Your task to perform on an android device: Open Maps and search for coffee Image 0: 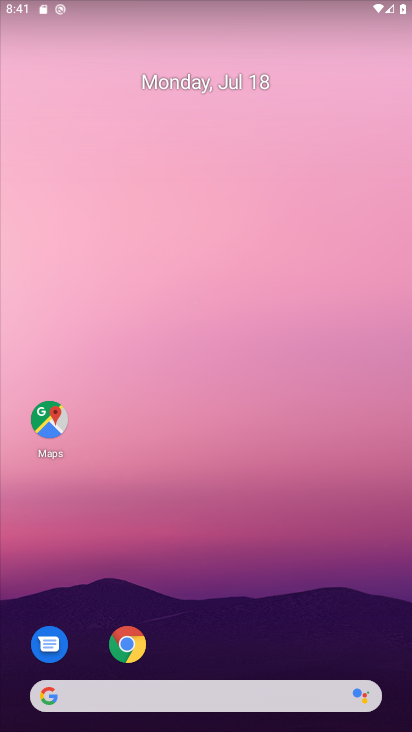
Step 0: click (32, 407)
Your task to perform on an android device: Open Maps and search for coffee Image 1: 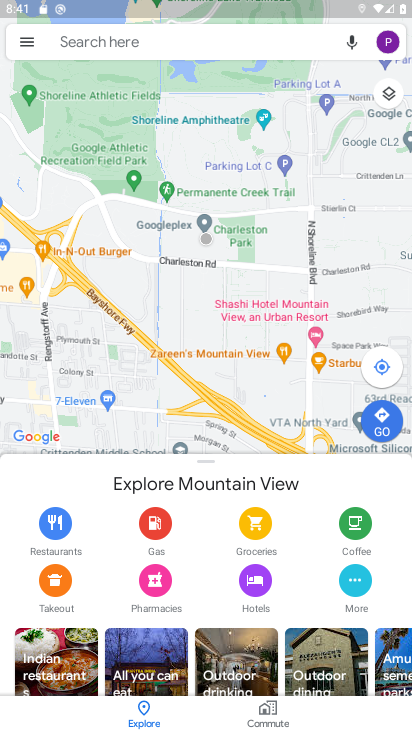
Step 1: click (256, 50)
Your task to perform on an android device: Open Maps and search for coffee Image 2: 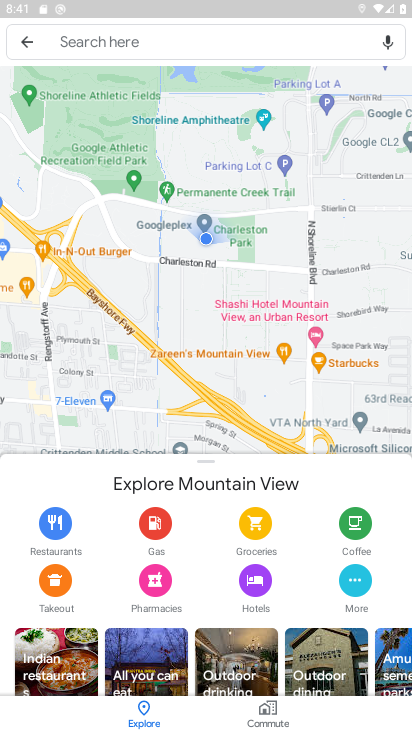
Step 2: click (256, 50)
Your task to perform on an android device: Open Maps and search for coffee Image 3: 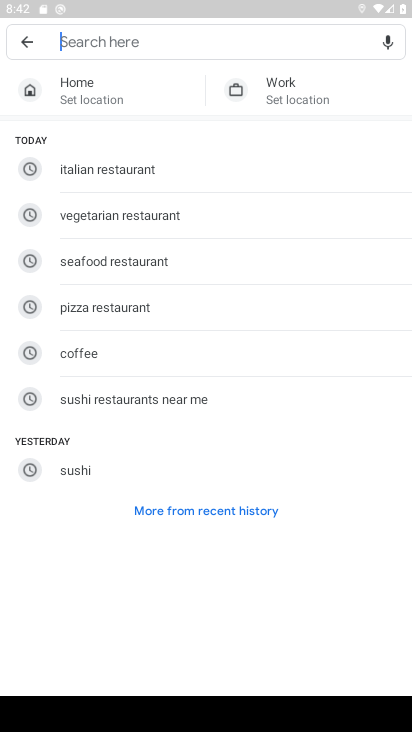
Step 3: type "coffee"
Your task to perform on an android device: Open Maps and search for coffee Image 4: 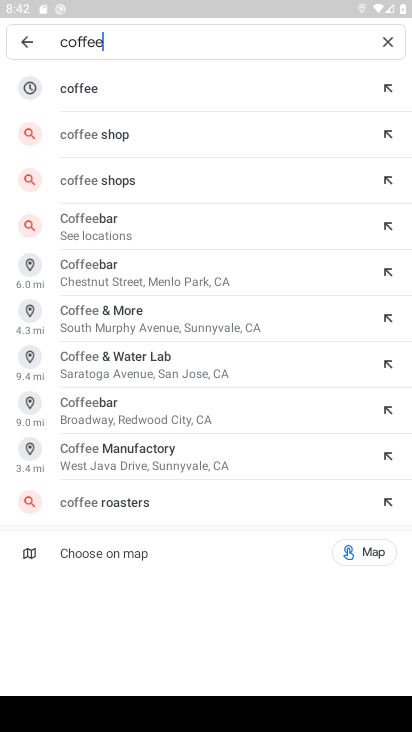
Step 4: click (168, 97)
Your task to perform on an android device: Open Maps and search for coffee Image 5: 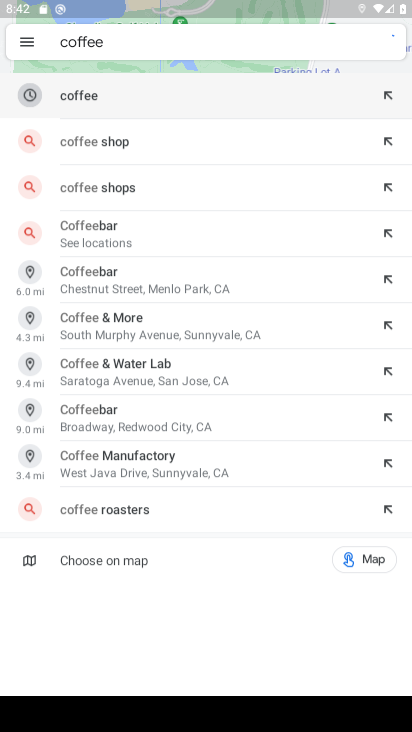
Step 5: task complete